Your task to perform on an android device: When is my next meeting? Image 0: 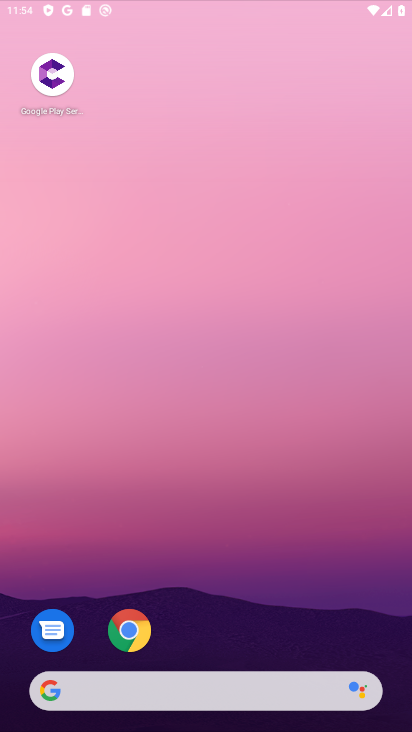
Step 0: drag from (211, 138) to (234, 95)
Your task to perform on an android device: When is my next meeting? Image 1: 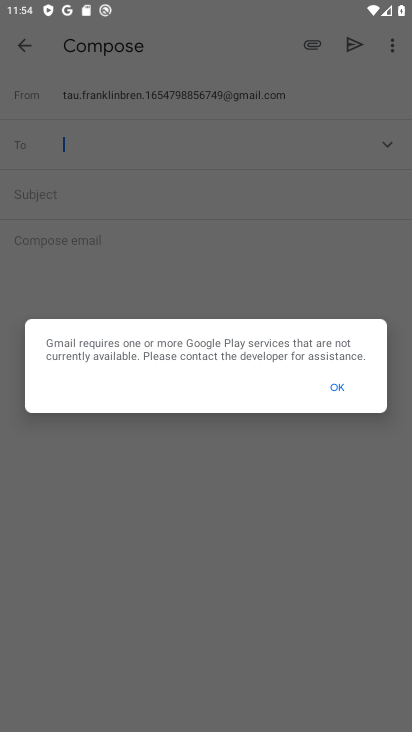
Step 1: press home button
Your task to perform on an android device: When is my next meeting? Image 2: 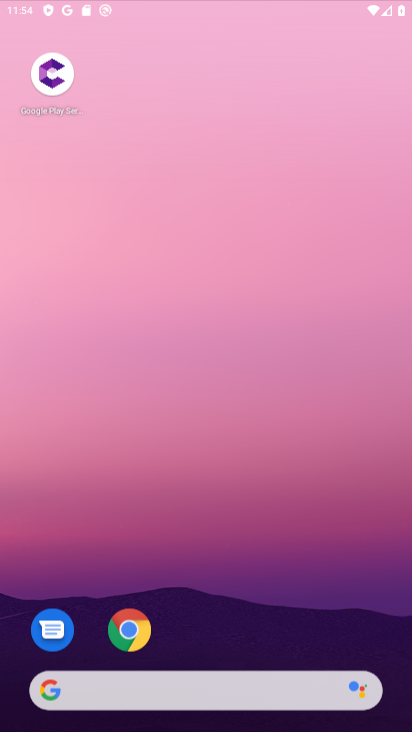
Step 2: drag from (193, 516) to (218, 125)
Your task to perform on an android device: When is my next meeting? Image 3: 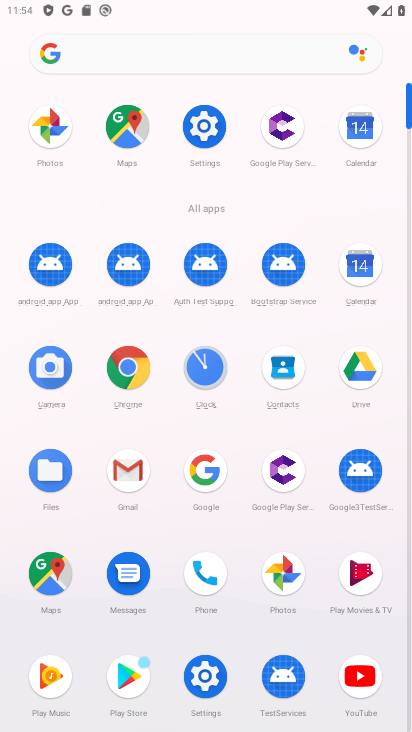
Step 3: drag from (156, 651) to (194, 253)
Your task to perform on an android device: When is my next meeting? Image 4: 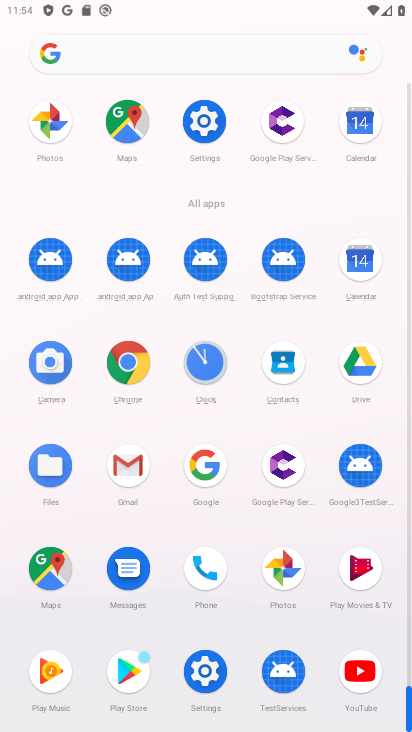
Step 4: click (351, 259)
Your task to perform on an android device: When is my next meeting? Image 5: 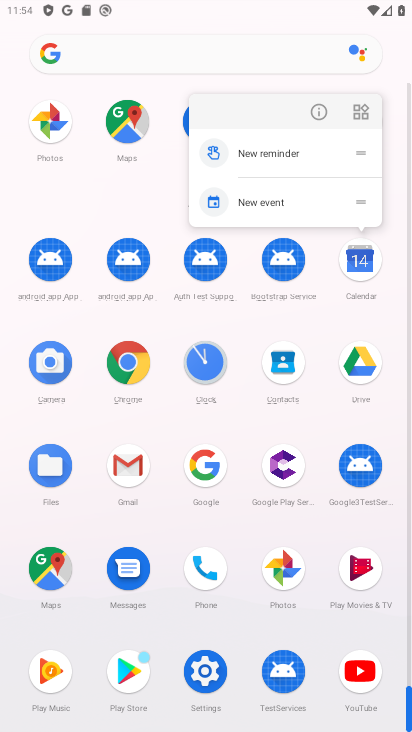
Step 5: click (316, 102)
Your task to perform on an android device: When is my next meeting? Image 6: 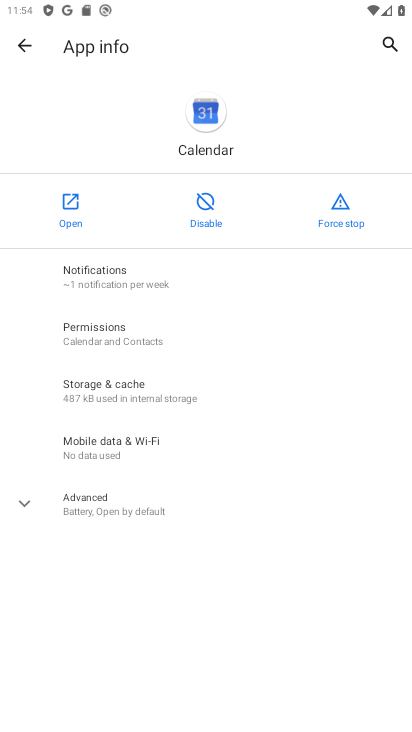
Step 6: click (60, 187)
Your task to perform on an android device: When is my next meeting? Image 7: 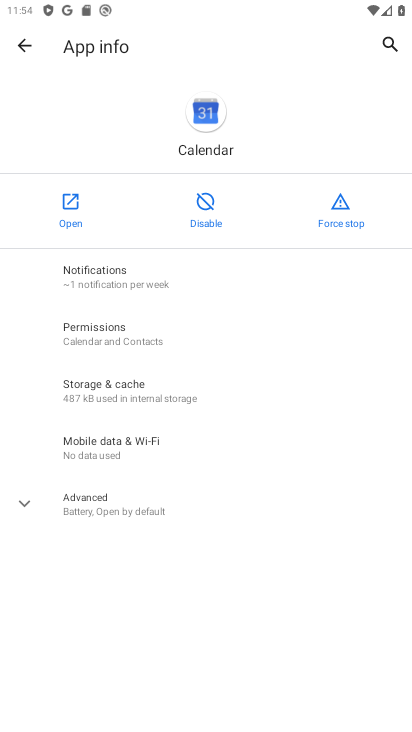
Step 7: click (60, 188)
Your task to perform on an android device: When is my next meeting? Image 8: 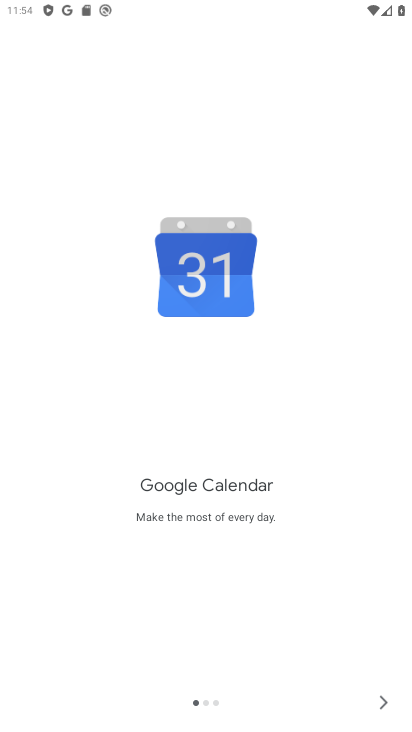
Step 8: drag from (239, 554) to (281, 266)
Your task to perform on an android device: When is my next meeting? Image 9: 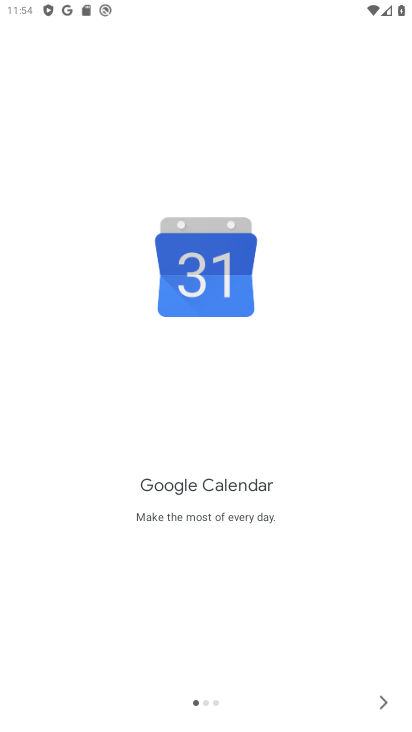
Step 9: click (379, 706)
Your task to perform on an android device: When is my next meeting? Image 10: 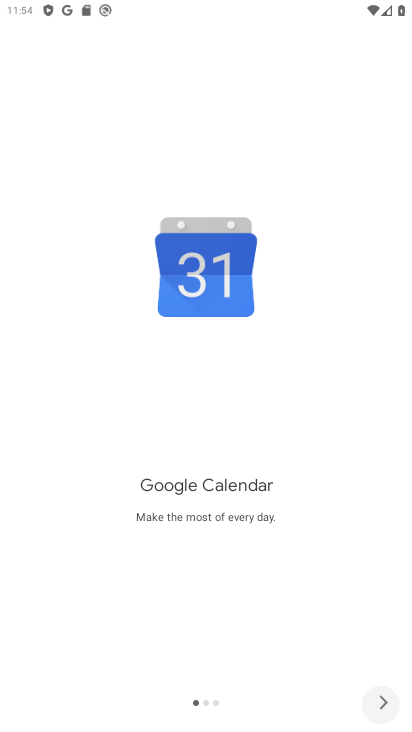
Step 10: click (379, 706)
Your task to perform on an android device: When is my next meeting? Image 11: 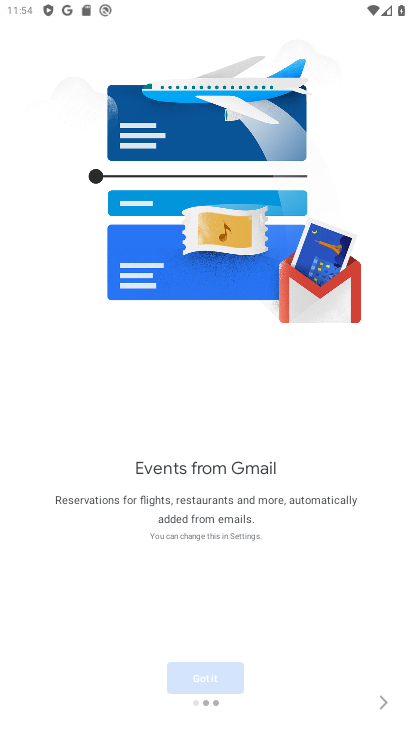
Step 11: click (378, 707)
Your task to perform on an android device: When is my next meeting? Image 12: 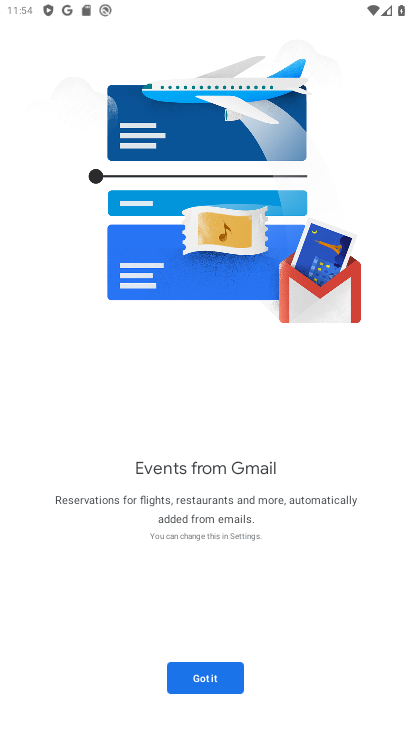
Step 12: click (377, 707)
Your task to perform on an android device: When is my next meeting? Image 13: 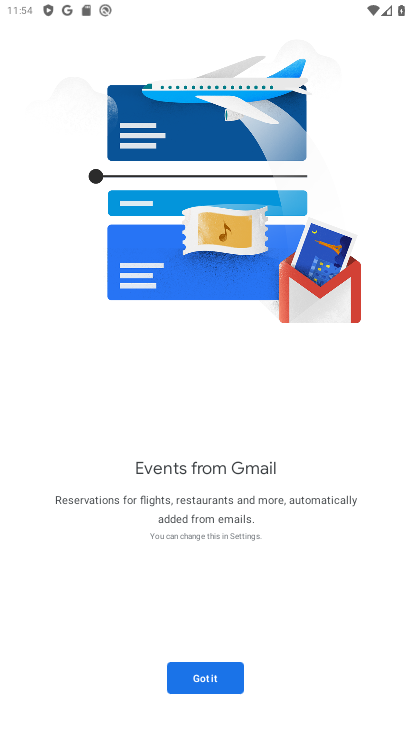
Step 13: click (182, 684)
Your task to perform on an android device: When is my next meeting? Image 14: 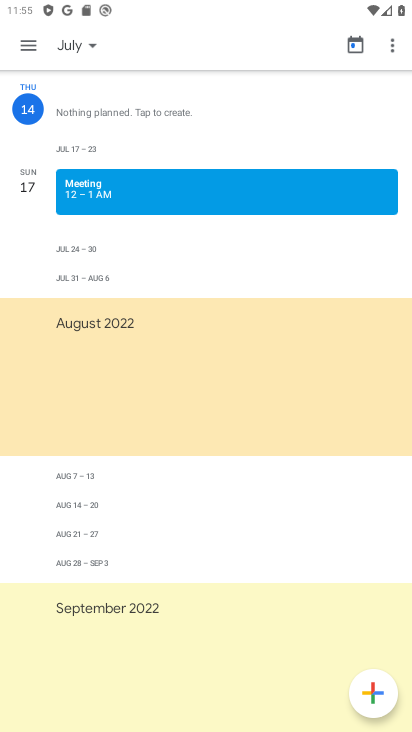
Step 14: drag from (151, 515) to (217, 285)
Your task to perform on an android device: When is my next meeting? Image 15: 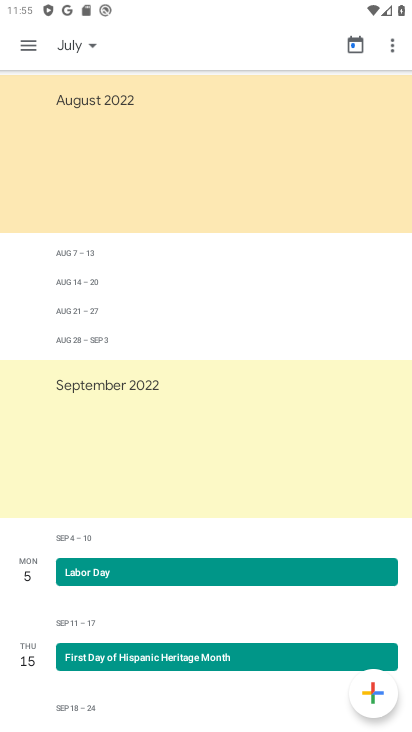
Step 15: click (345, 41)
Your task to perform on an android device: When is my next meeting? Image 16: 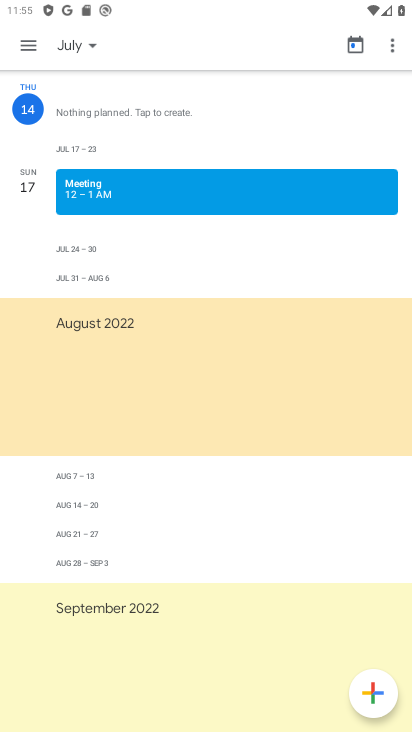
Step 16: task complete